Your task to perform on an android device: Open the calendar and show me this week's events Image 0: 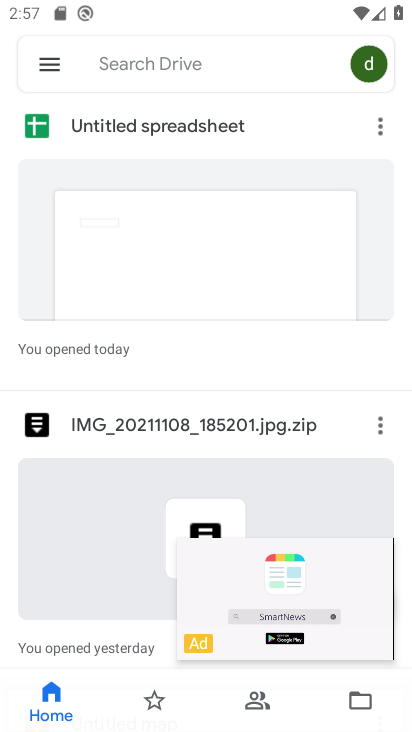
Step 0: press home button
Your task to perform on an android device: Open the calendar and show me this week's events Image 1: 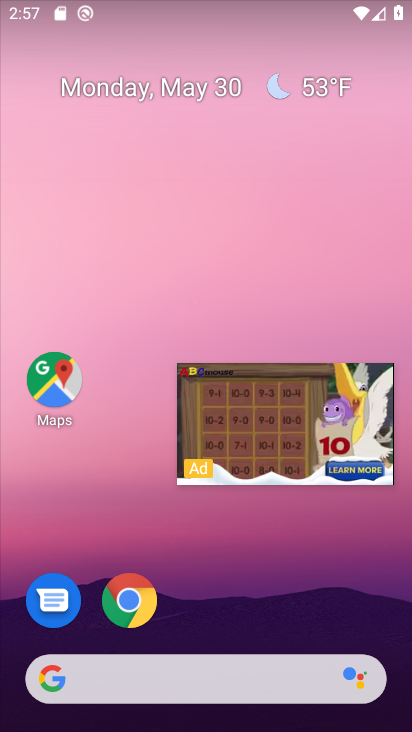
Step 1: click (379, 387)
Your task to perform on an android device: Open the calendar and show me this week's events Image 2: 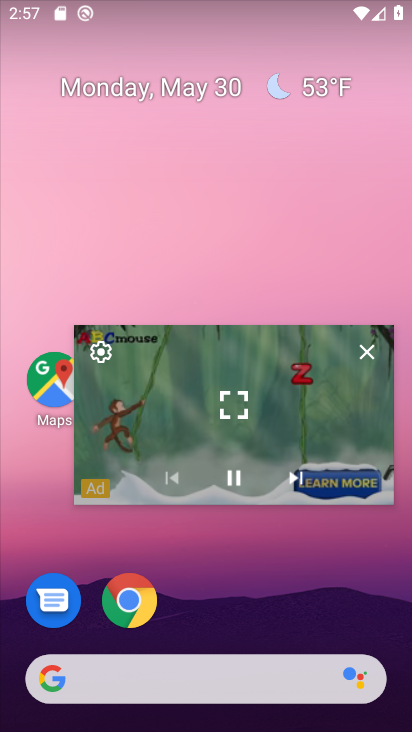
Step 2: click (372, 344)
Your task to perform on an android device: Open the calendar and show me this week's events Image 3: 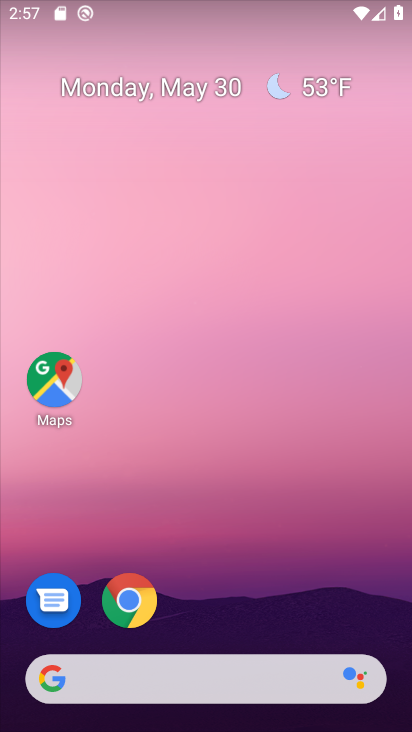
Step 3: drag from (269, 586) to (207, 124)
Your task to perform on an android device: Open the calendar and show me this week's events Image 4: 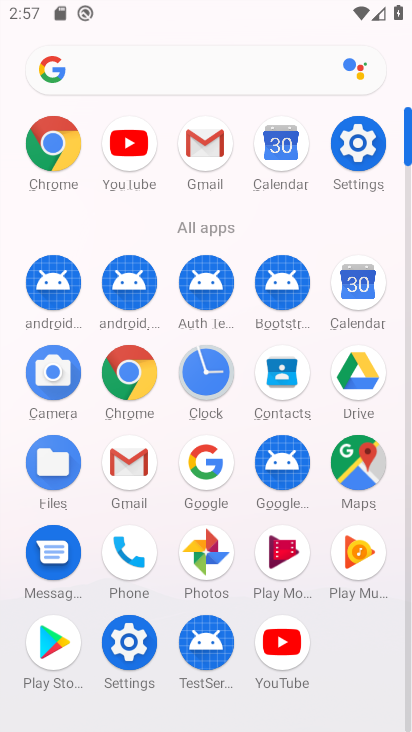
Step 4: click (369, 280)
Your task to perform on an android device: Open the calendar and show me this week's events Image 5: 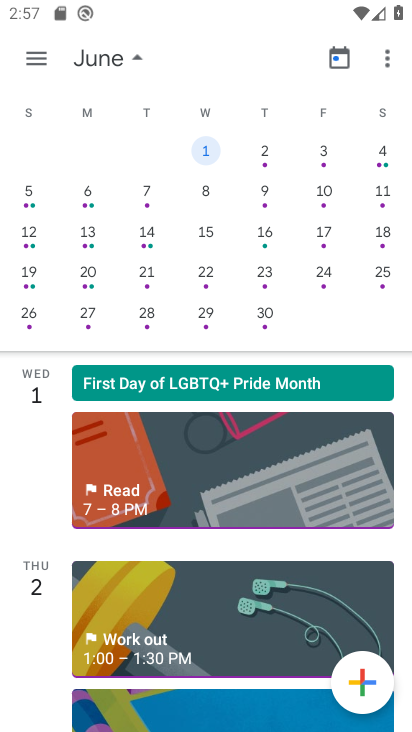
Step 5: drag from (368, 260) to (45, 255)
Your task to perform on an android device: Open the calendar and show me this week's events Image 6: 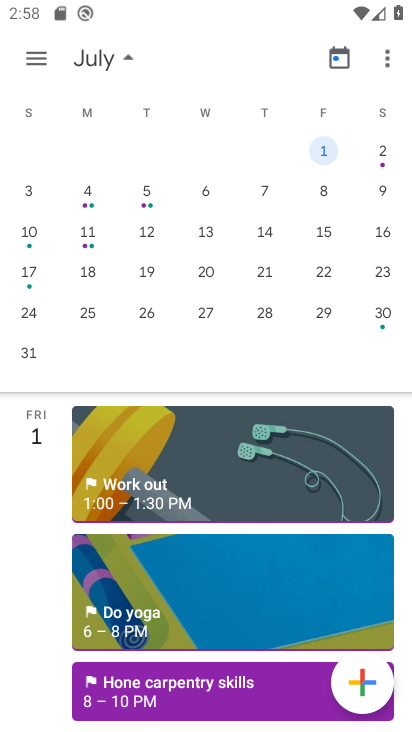
Step 6: click (89, 203)
Your task to perform on an android device: Open the calendar and show me this week's events Image 7: 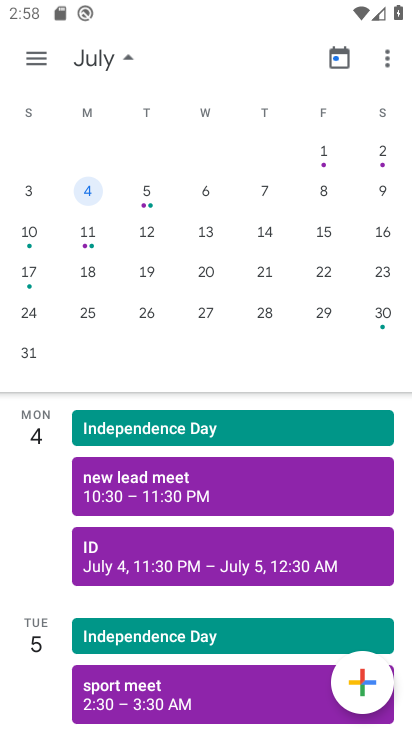
Step 7: task complete